Your task to perform on an android device: create a new album in the google photos Image 0: 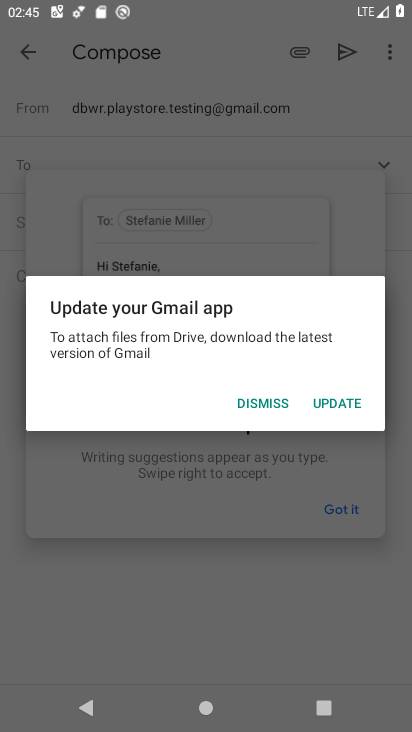
Step 0: press home button
Your task to perform on an android device: create a new album in the google photos Image 1: 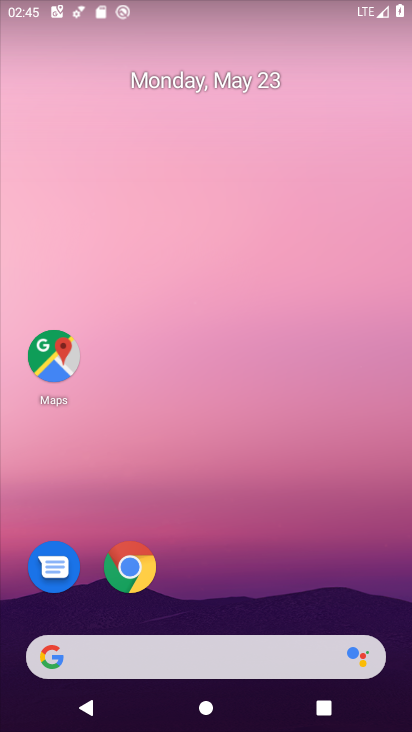
Step 1: drag from (228, 616) to (288, 170)
Your task to perform on an android device: create a new album in the google photos Image 2: 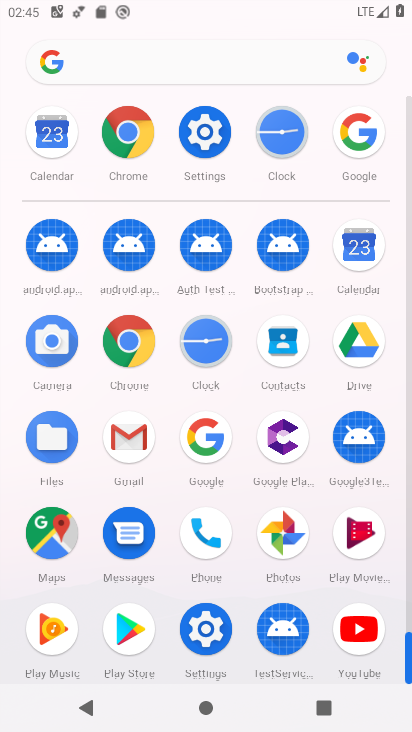
Step 2: click (286, 525)
Your task to perform on an android device: create a new album in the google photos Image 3: 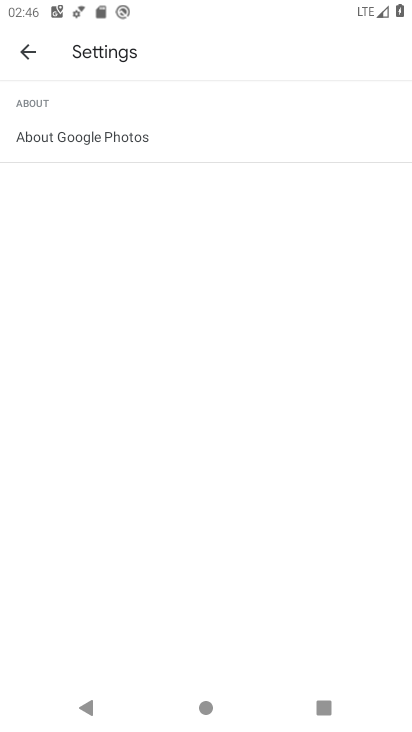
Step 3: click (27, 51)
Your task to perform on an android device: create a new album in the google photos Image 4: 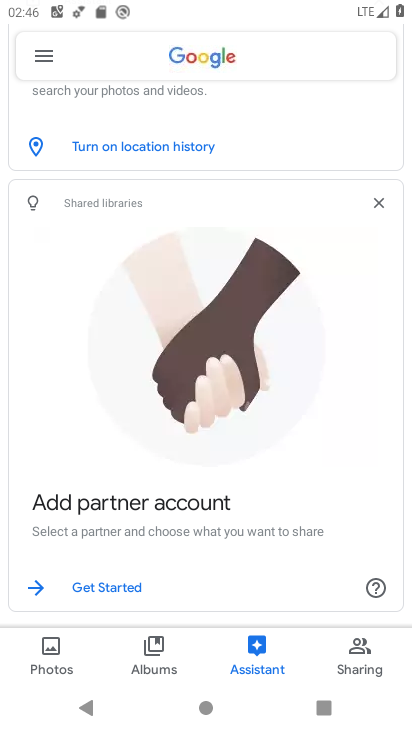
Step 4: click (141, 660)
Your task to perform on an android device: create a new album in the google photos Image 5: 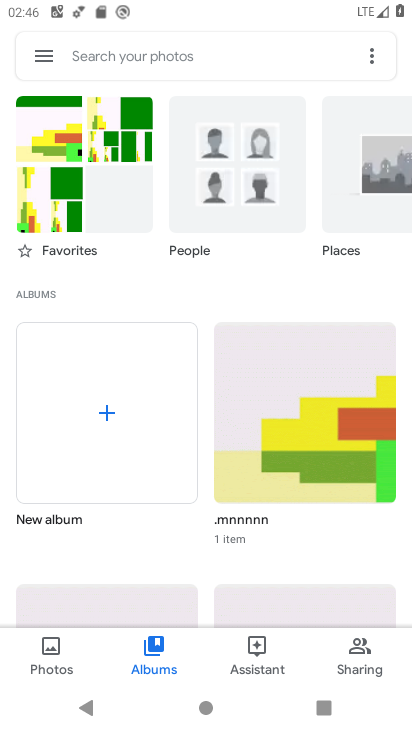
Step 5: click (99, 439)
Your task to perform on an android device: create a new album in the google photos Image 6: 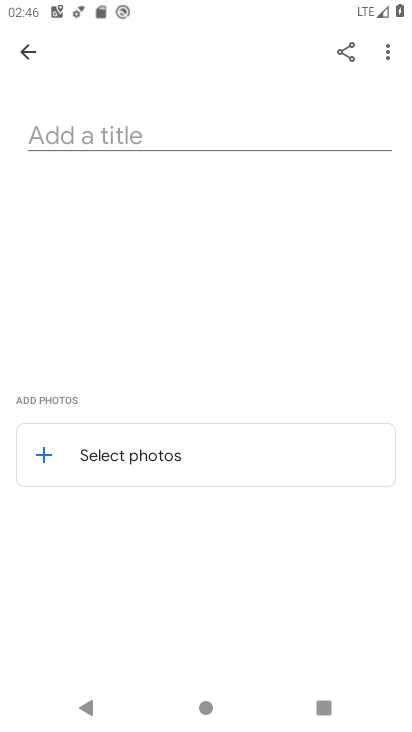
Step 6: click (154, 135)
Your task to perform on an android device: create a new album in the google photos Image 7: 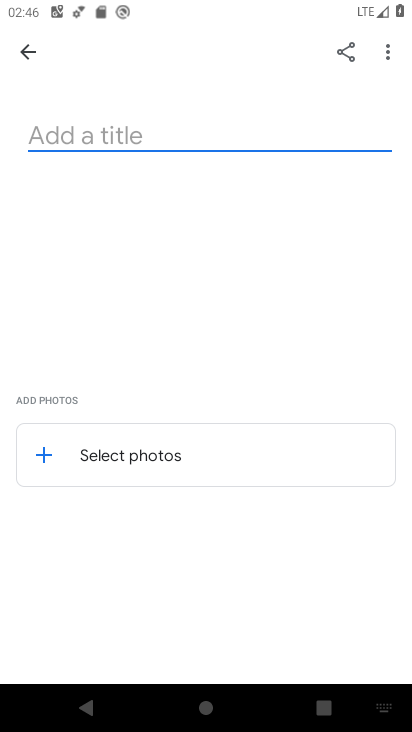
Step 7: type "vfgdffc"
Your task to perform on an android device: create a new album in the google photos Image 8: 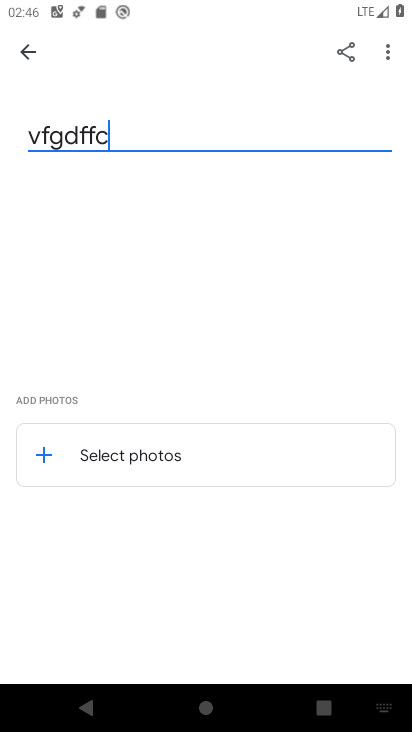
Step 8: type ""
Your task to perform on an android device: create a new album in the google photos Image 9: 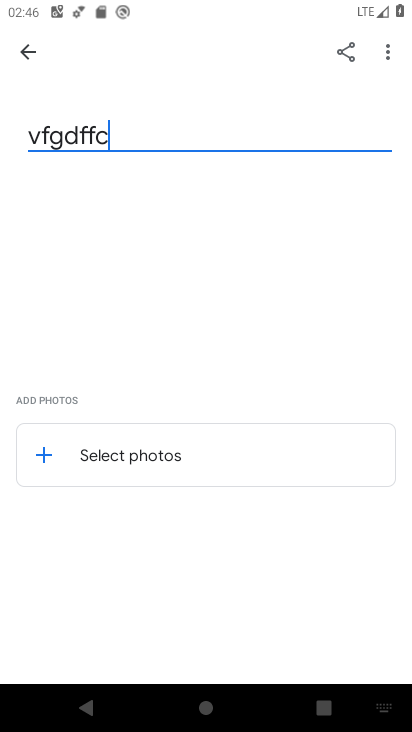
Step 9: click (175, 452)
Your task to perform on an android device: create a new album in the google photos Image 10: 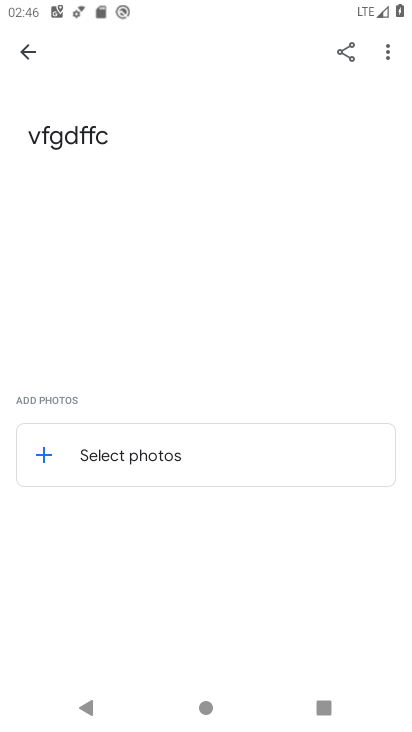
Step 10: click (138, 459)
Your task to perform on an android device: create a new album in the google photos Image 11: 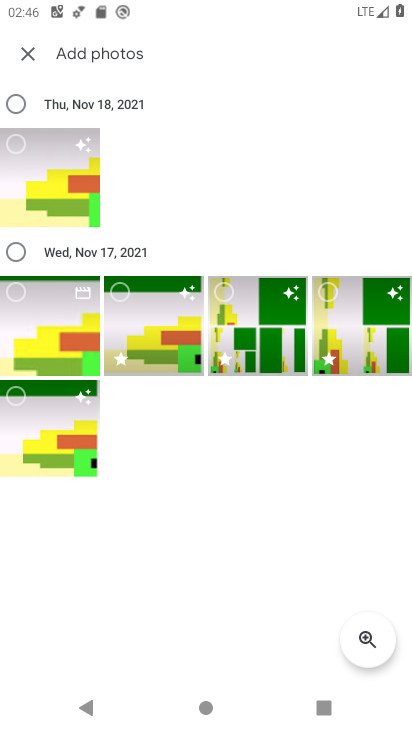
Step 11: click (142, 349)
Your task to perform on an android device: create a new album in the google photos Image 12: 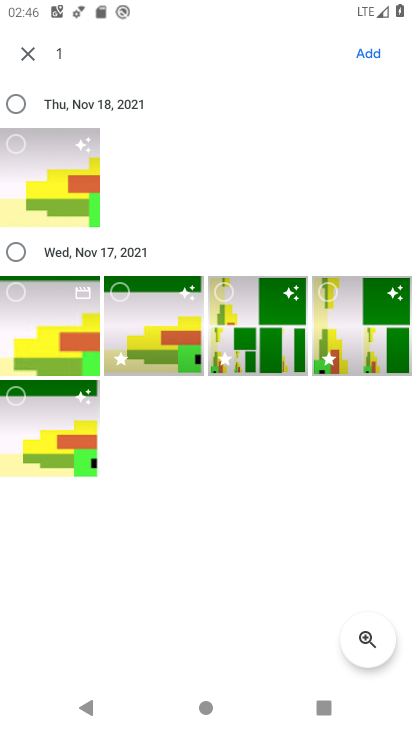
Step 12: click (306, 327)
Your task to perform on an android device: create a new album in the google photos Image 13: 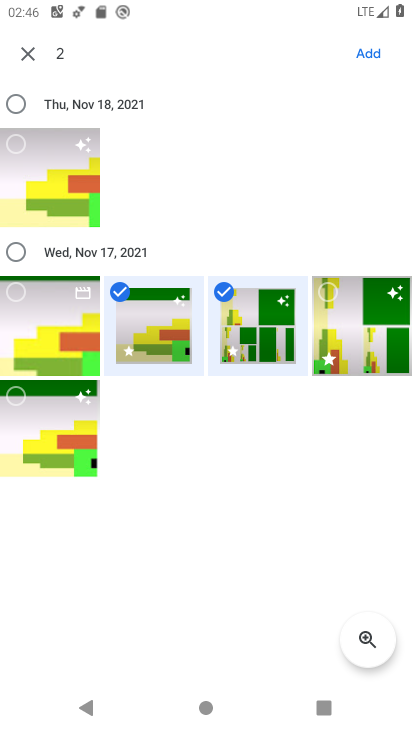
Step 13: click (369, 51)
Your task to perform on an android device: create a new album in the google photos Image 14: 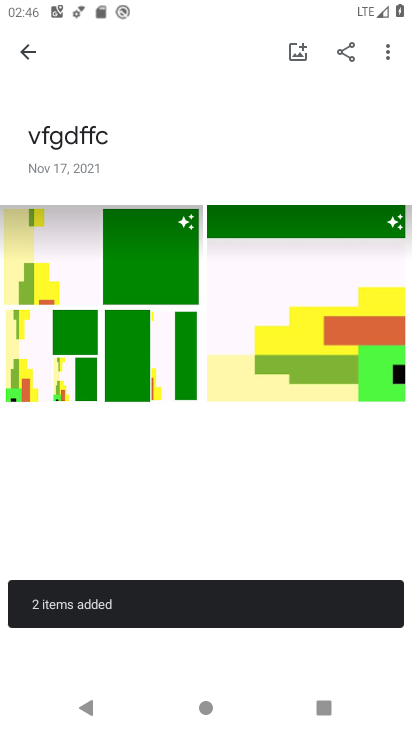
Step 14: task complete